Your task to perform on an android device: Go to Maps Image 0: 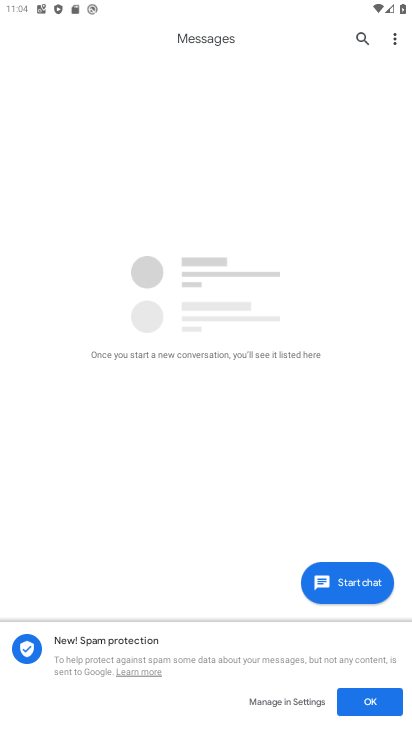
Step 0: press home button
Your task to perform on an android device: Go to Maps Image 1: 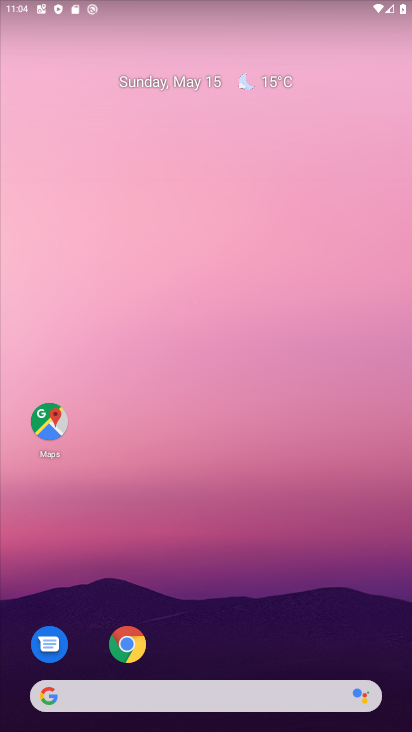
Step 1: click (40, 425)
Your task to perform on an android device: Go to Maps Image 2: 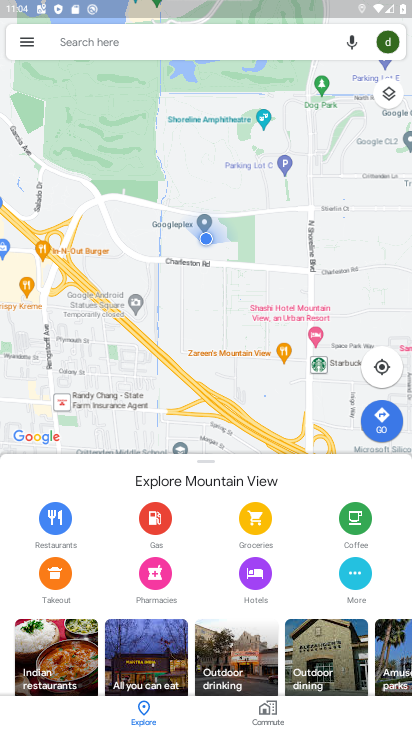
Step 2: task complete